Your task to perform on an android device: read, delete, or share a saved page in the chrome app Image 0: 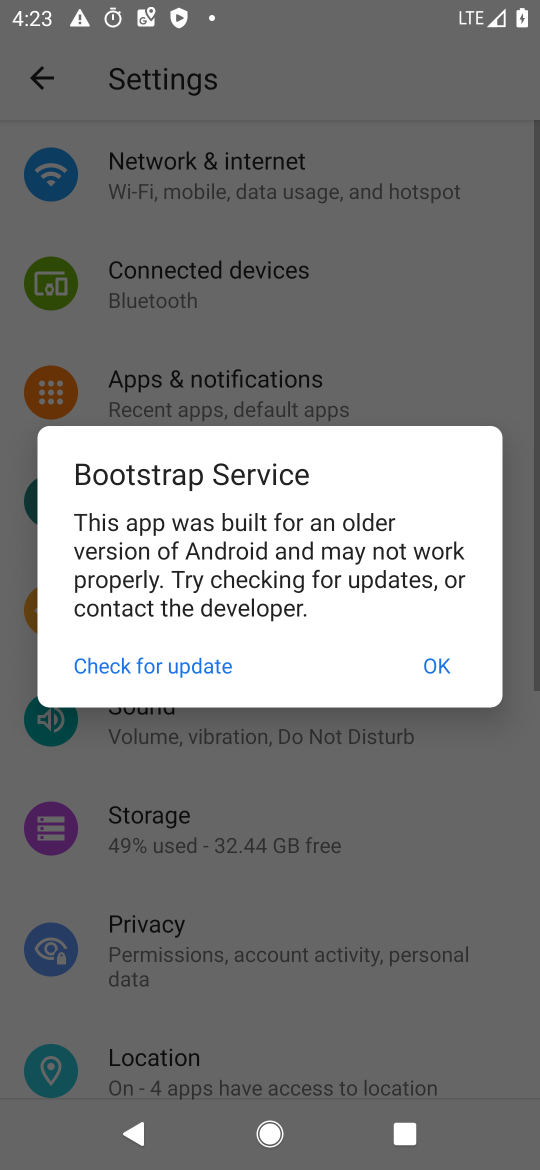
Step 0: press home button
Your task to perform on an android device: read, delete, or share a saved page in the chrome app Image 1: 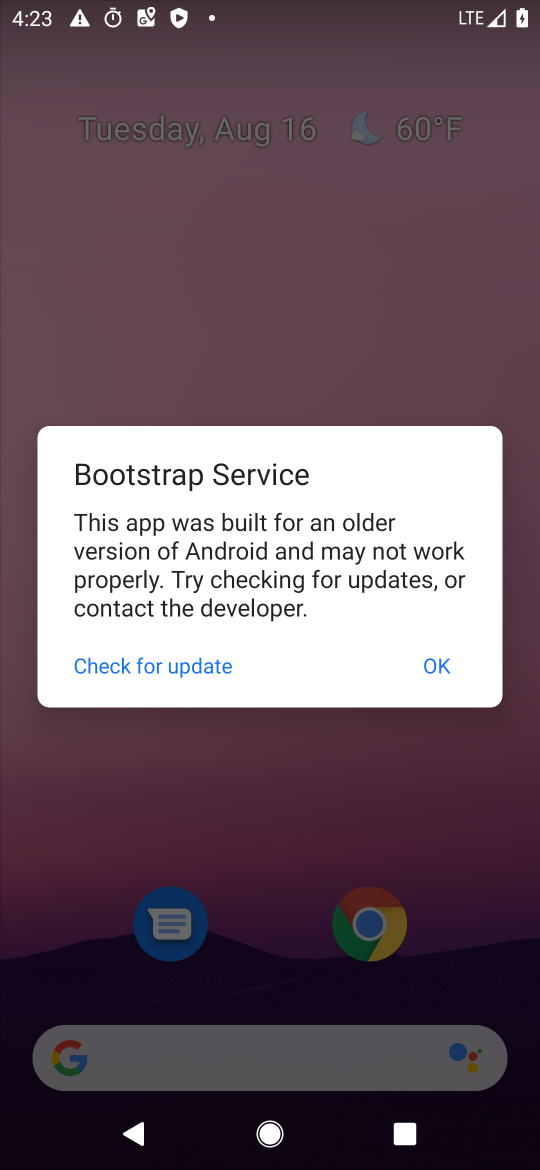
Step 1: click (430, 656)
Your task to perform on an android device: read, delete, or share a saved page in the chrome app Image 2: 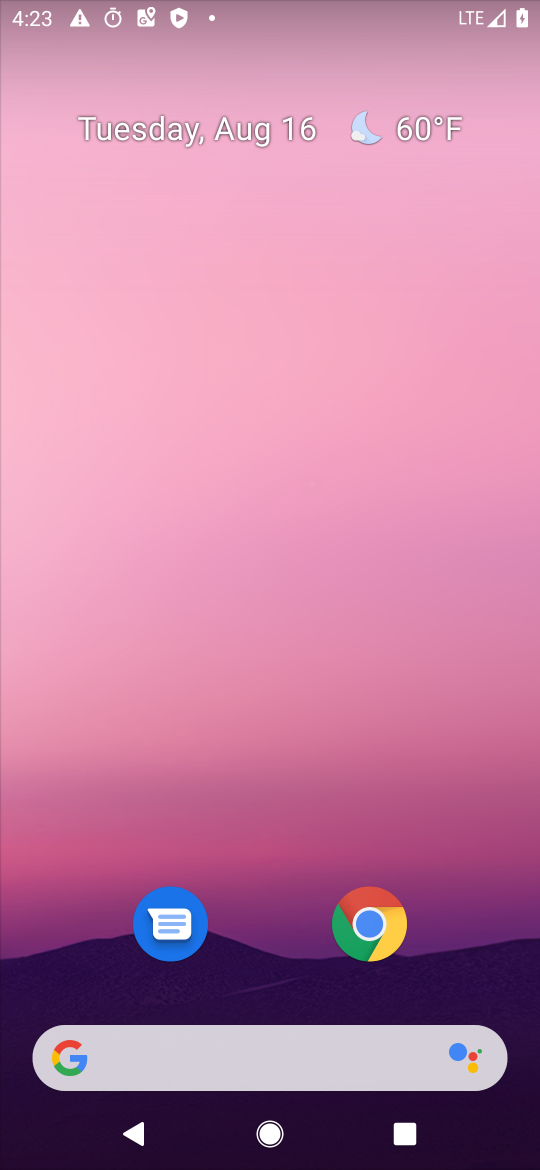
Step 2: click (363, 929)
Your task to perform on an android device: read, delete, or share a saved page in the chrome app Image 3: 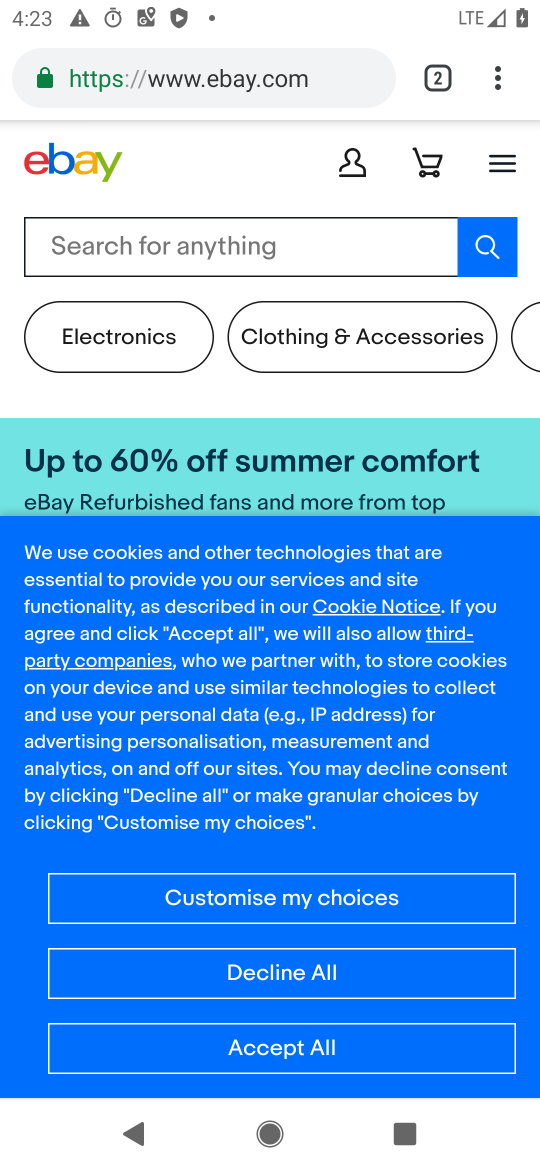
Step 3: click (487, 89)
Your task to perform on an android device: read, delete, or share a saved page in the chrome app Image 4: 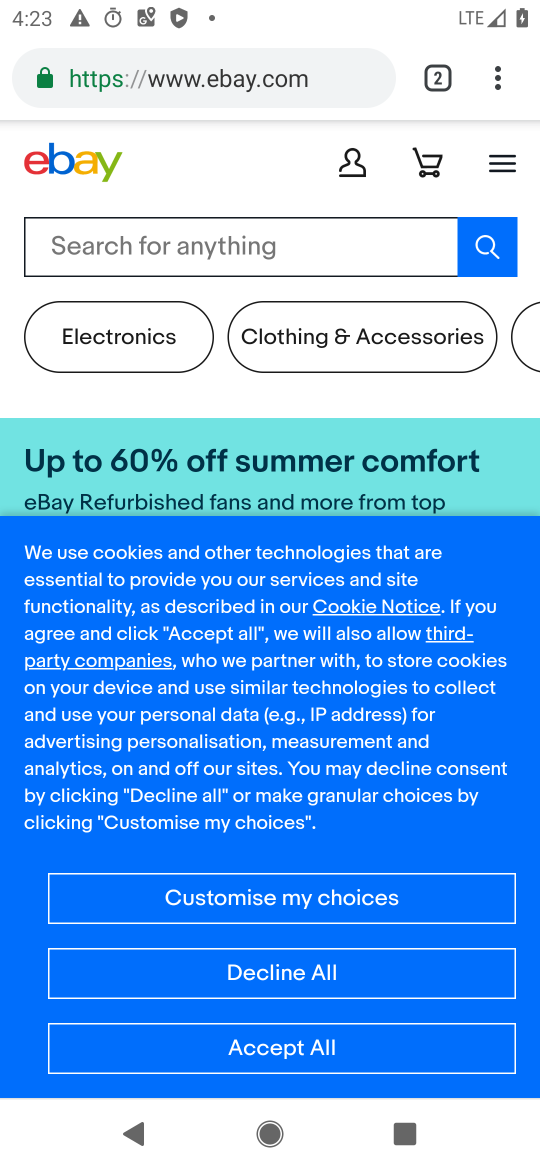
Step 4: click (487, 89)
Your task to perform on an android device: read, delete, or share a saved page in the chrome app Image 5: 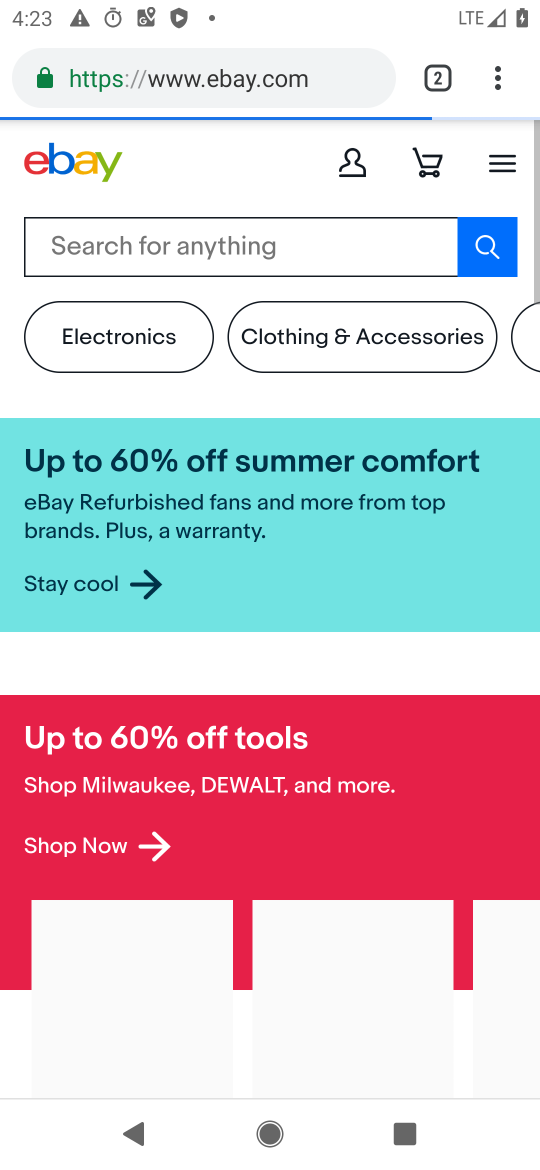
Step 5: click (487, 89)
Your task to perform on an android device: read, delete, or share a saved page in the chrome app Image 6: 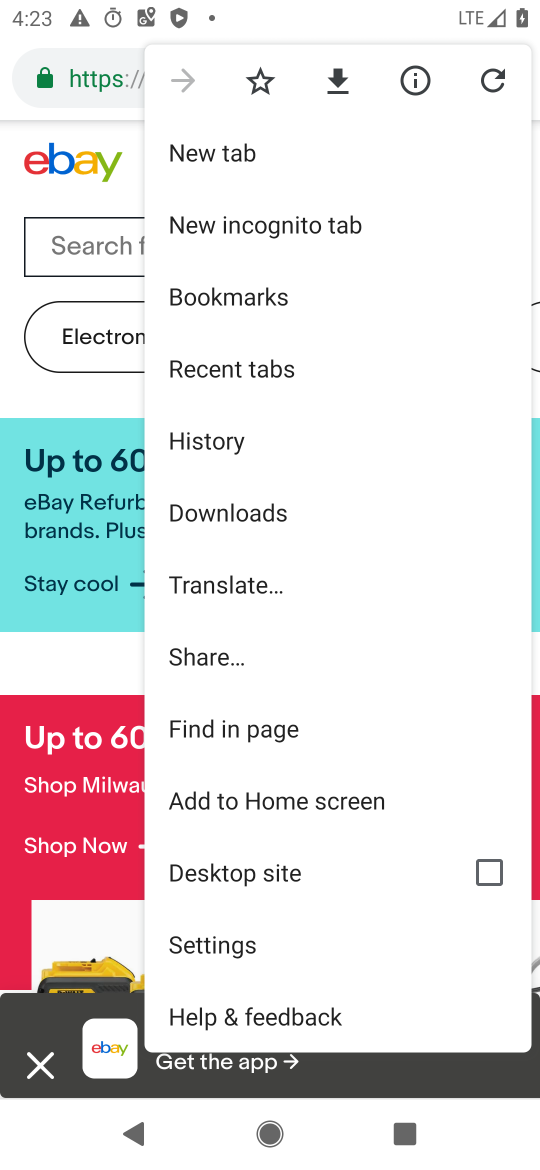
Step 6: task complete